Your task to perform on an android device: Open Reddit.com Image 0: 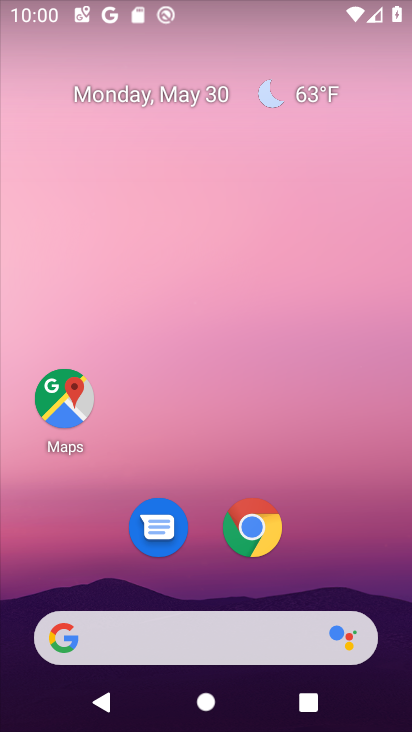
Step 0: click (240, 526)
Your task to perform on an android device: Open Reddit.com Image 1: 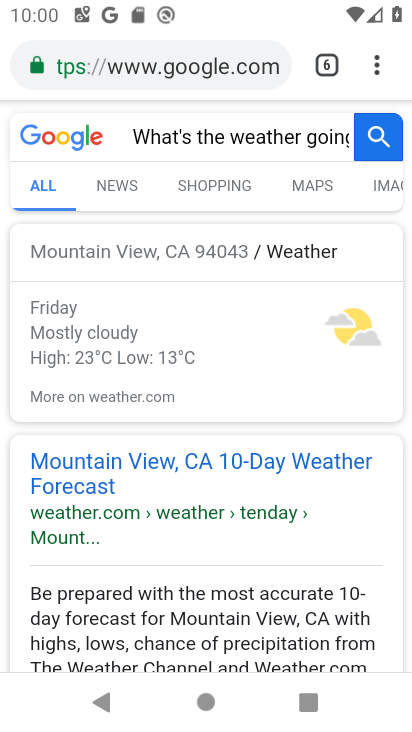
Step 1: click (370, 65)
Your task to perform on an android device: Open Reddit.com Image 2: 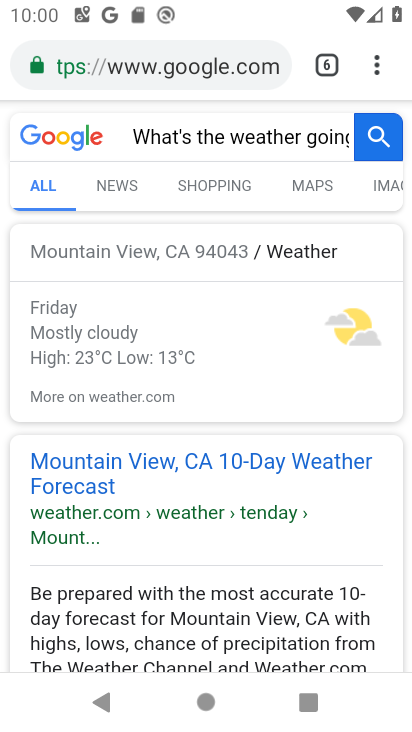
Step 2: click (370, 53)
Your task to perform on an android device: Open Reddit.com Image 3: 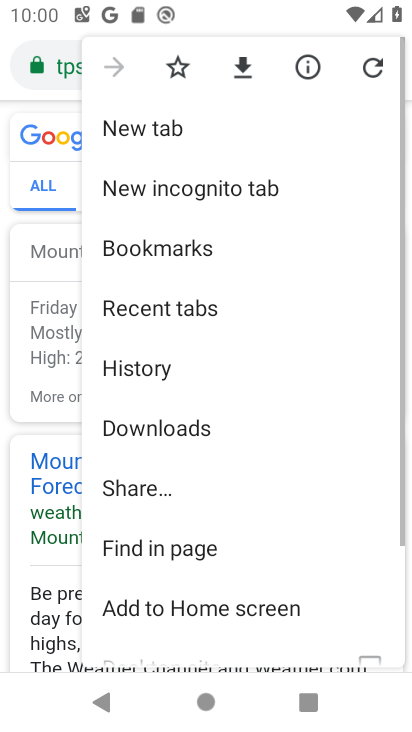
Step 3: click (159, 136)
Your task to perform on an android device: Open Reddit.com Image 4: 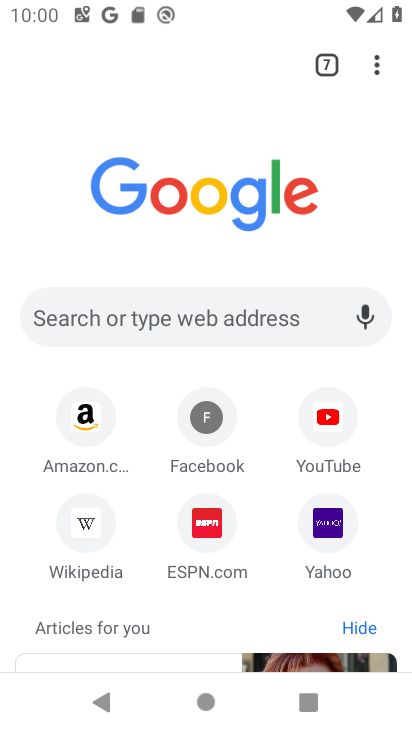
Step 4: click (194, 322)
Your task to perform on an android device: Open Reddit.com Image 5: 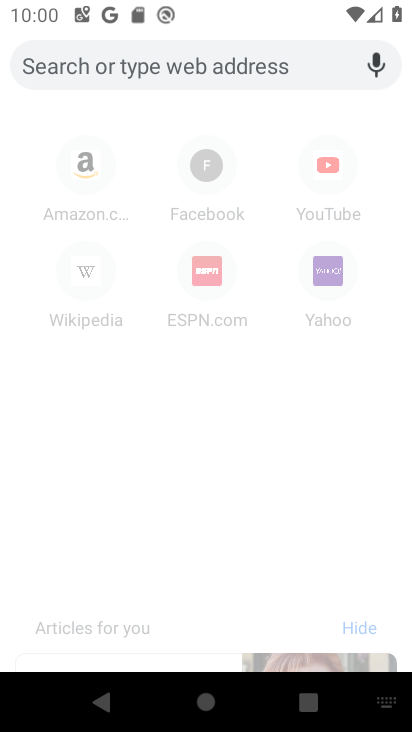
Step 5: type "Reddit.com"
Your task to perform on an android device: Open Reddit.com Image 6: 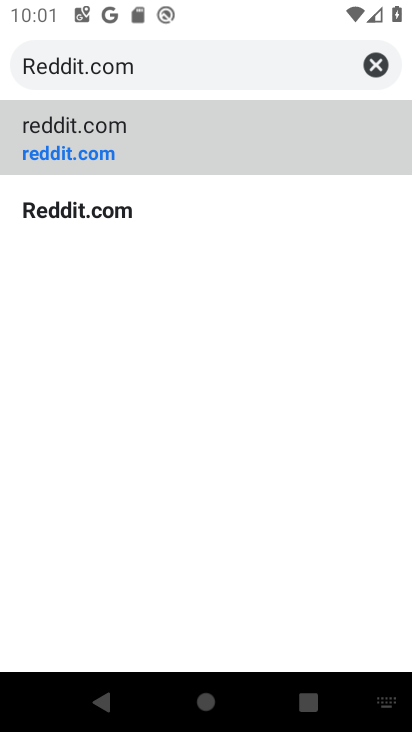
Step 6: click (207, 147)
Your task to perform on an android device: Open Reddit.com Image 7: 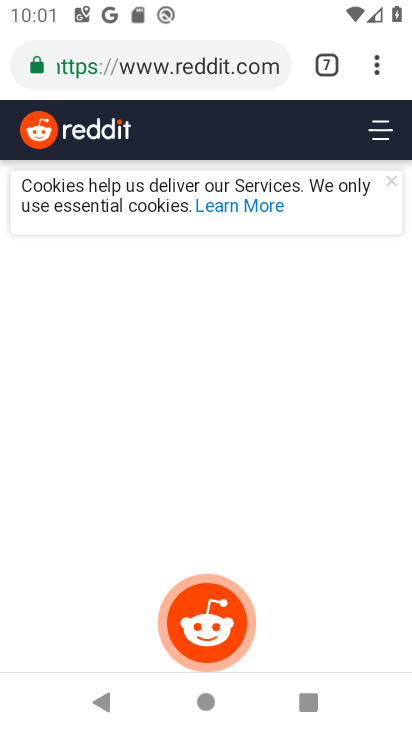
Step 7: task complete